Your task to perform on an android device: See recent photos Image 0: 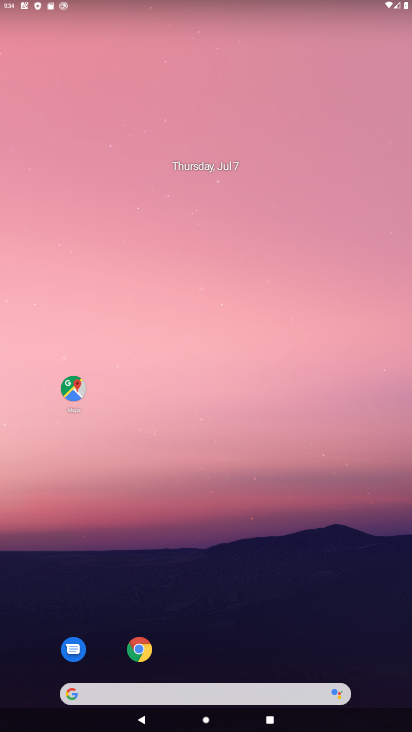
Step 0: click (230, 637)
Your task to perform on an android device: See recent photos Image 1: 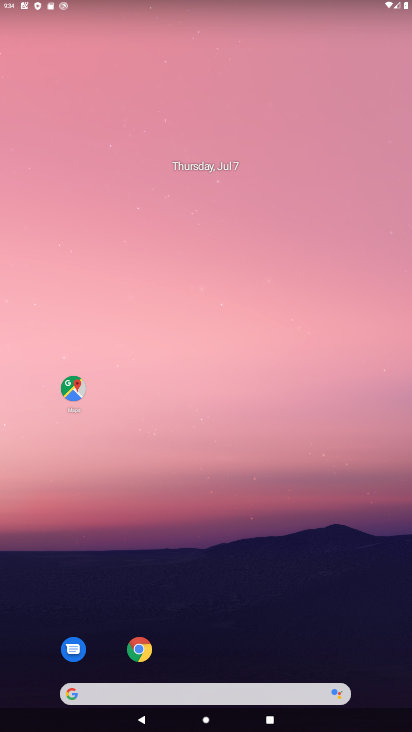
Step 1: drag from (234, 509) to (193, 222)
Your task to perform on an android device: See recent photos Image 2: 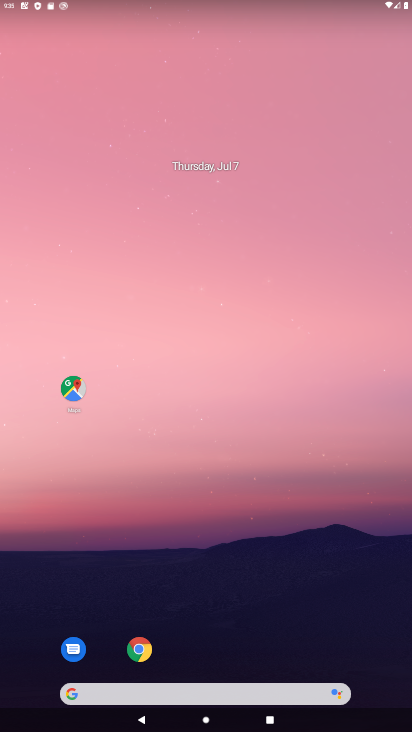
Step 2: drag from (236, 550) to (176, 73)
Your task to perform on an android device: See recent photos Image 3: 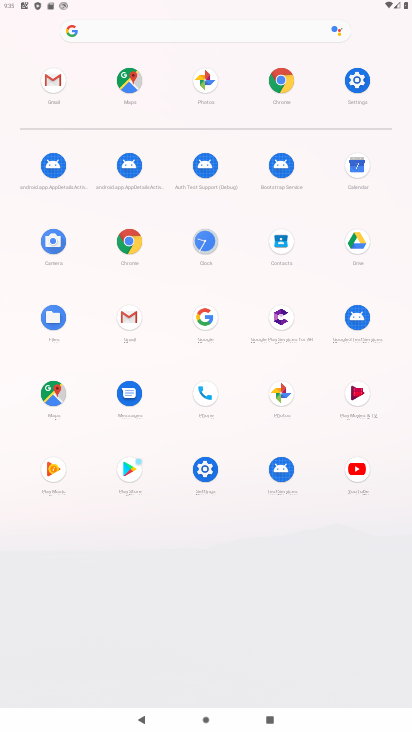
Step 3: click (281, 393)
Your task to perform on an android device: See recent photos Image 4: 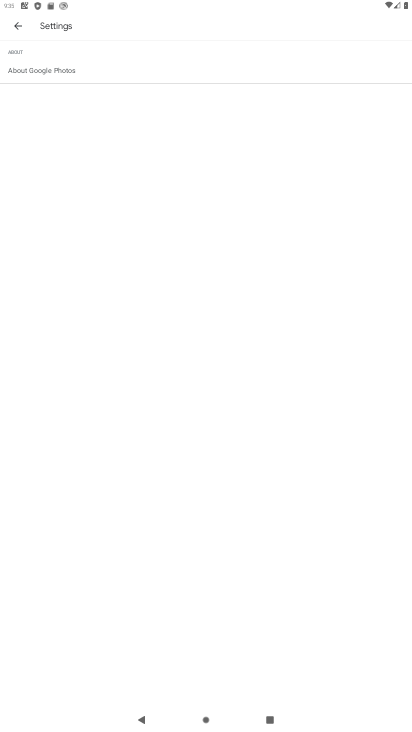
Step 4: press home button
Your task to perform on an android device: See recent photos Image 5: 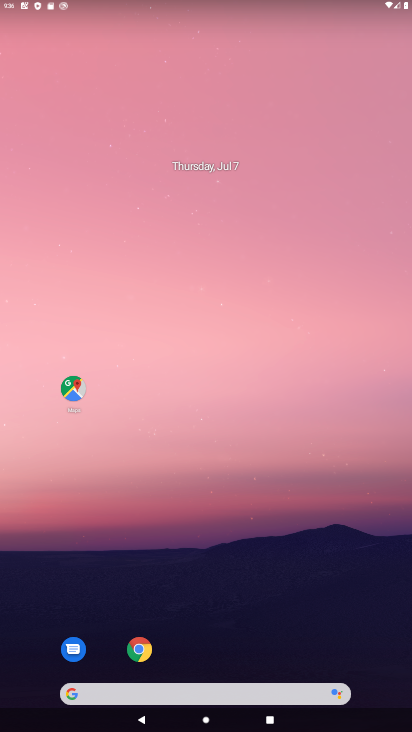
Step 5: click (216, 415)
Your task to perform on an android device: See recent photos Image 6: 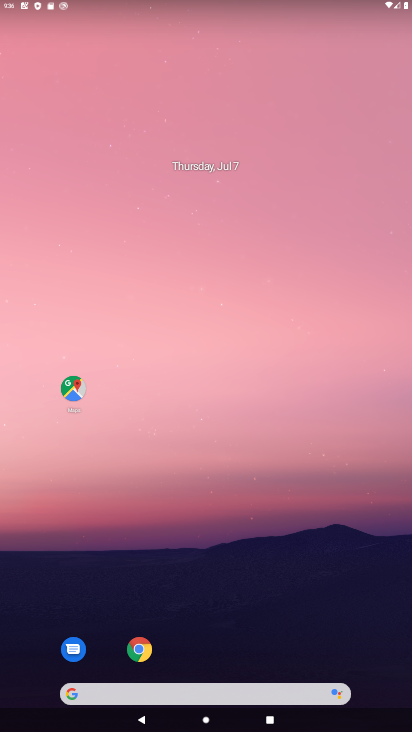
Step 6: drag from (217, 532) to (181, 55)
Your task to perform on an android device: See recent photos Image 7: 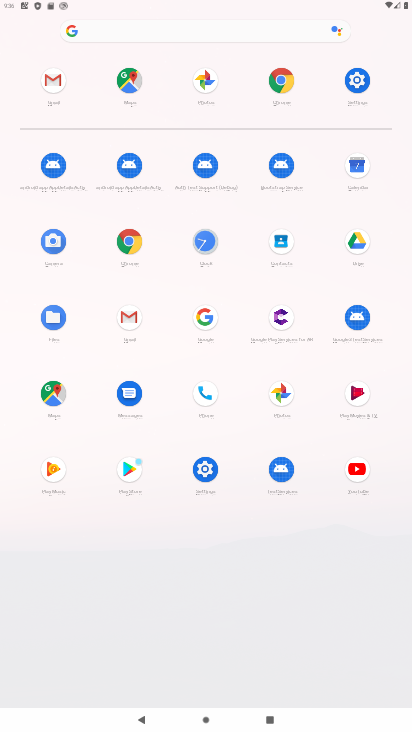
Step 7: click (282, 392)
Your task to perform on an android device: See recent photos Image 8: 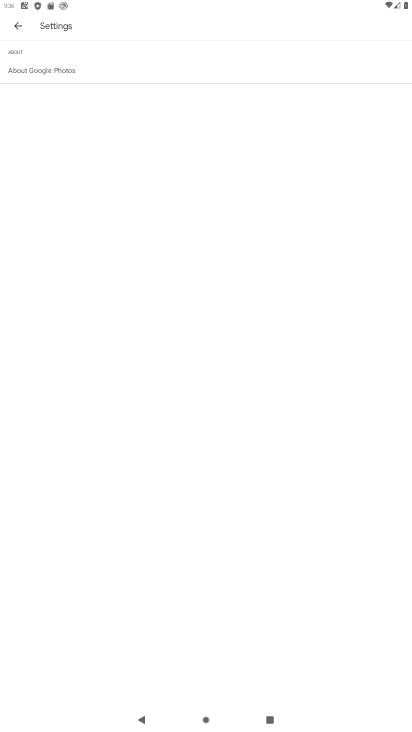
Step 8: click (17, 21)
Your task to perform on an android device: See recent photos Image 9: 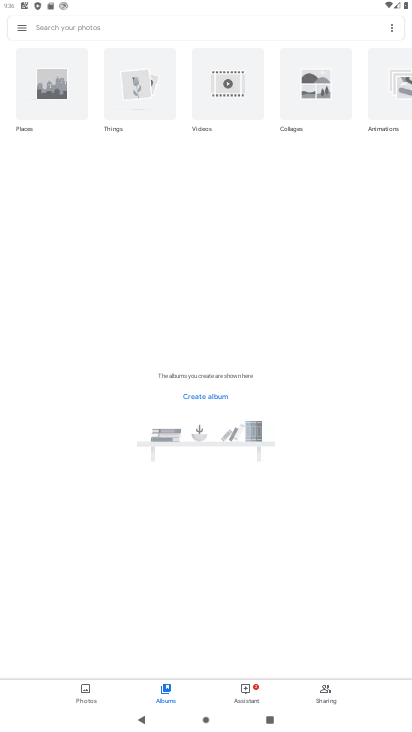
Step 9: click (73, 690)
Your task to perform on an android device: See recent photos Image 10: 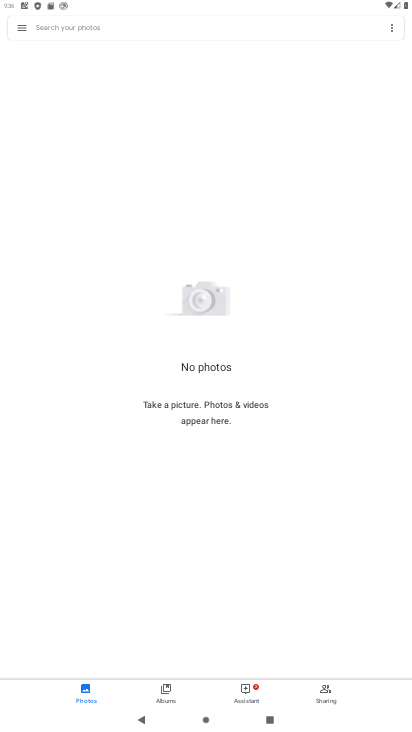
Step 10: task complete